Your task to perform on an android device: toggle priority inbox in the gmail app Image 0: 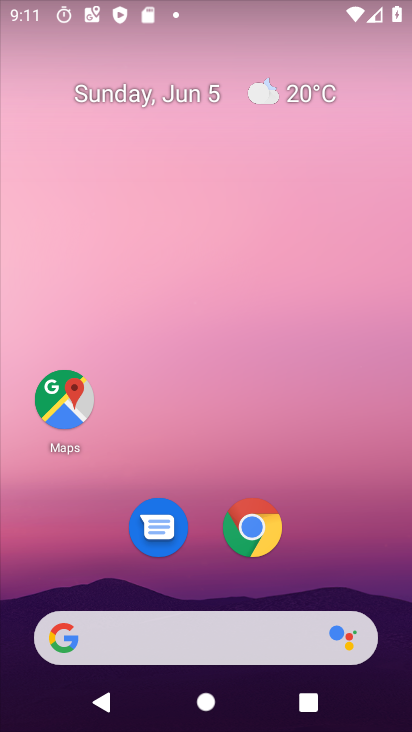
Step 0: drag from (303, 557) to (319, 51)
Your task to perform on an android device: toggle priority inbox in the gmail app Image 1: 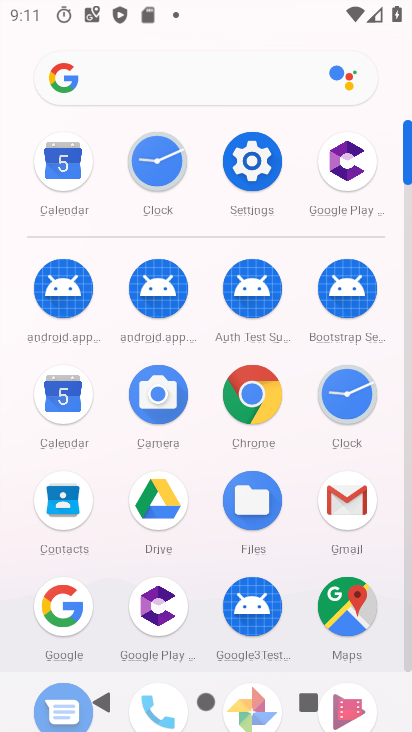
Step 1: click (363, 492)
Your task to perform on an android device: toggle priority inbox in the gmail app Image 2: 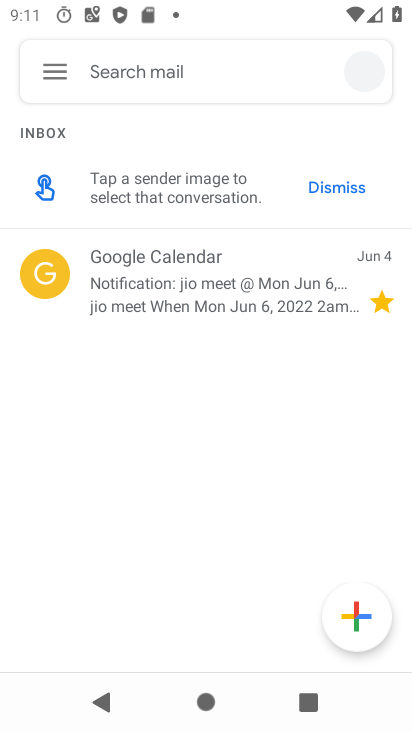
Step 2: click (55, 68)
Your task to perform on an android device: toggle priority inbox in the gmail app Image 3: 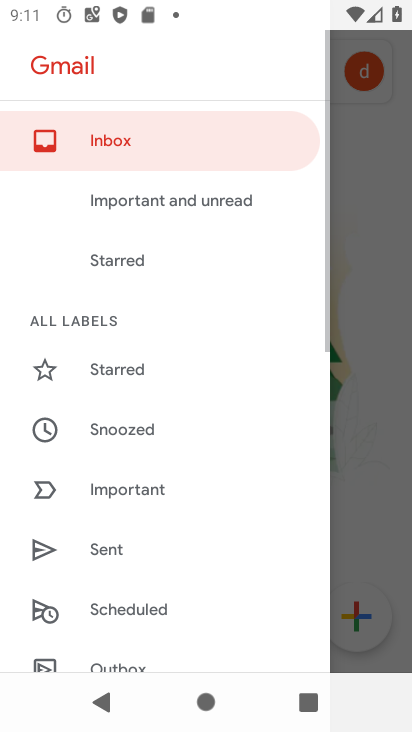
Step 3: drag from (114, 551) to (150, 129)
Your task to perform on an android device: toggle priority inbox in the gmail app Image 4: 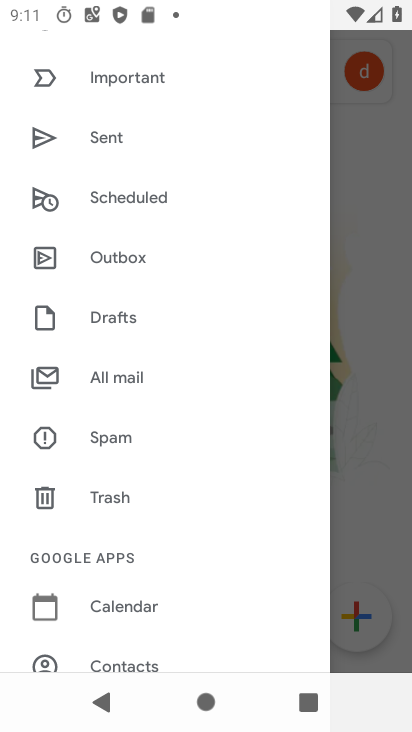
Step 4: drag from (157, 579) to (207, 162)
Your task to perform on an android device: toggle priority inbox in the gmail app Image 5: 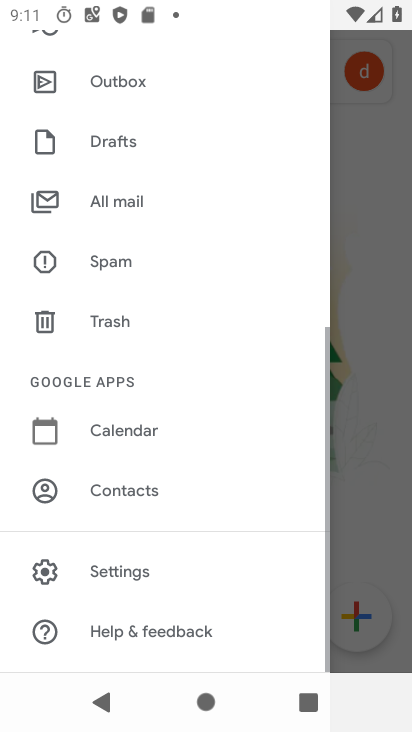
Step 5: click (129, 574)
Your task to perform on an android device: toggle priority inbox in the gmail app Image 6: 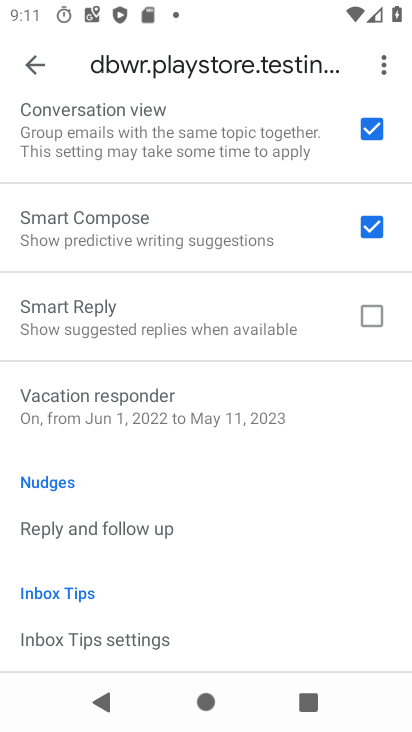
Step 6: drag from (87, 79) to (112, 483)
Your task to perform on an android device: toggle priority inbox in the gmail app Image 7: 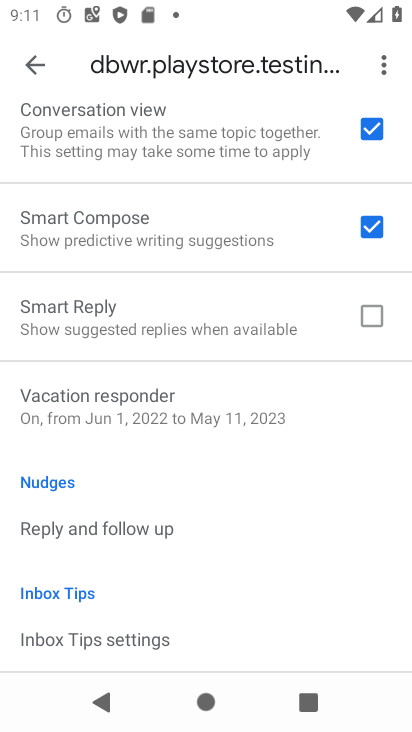
Step 7: drag from (119, 249) to (202, 605)
Your task to perform on an android device: toggle priority inbox in the gmail app Image 8: 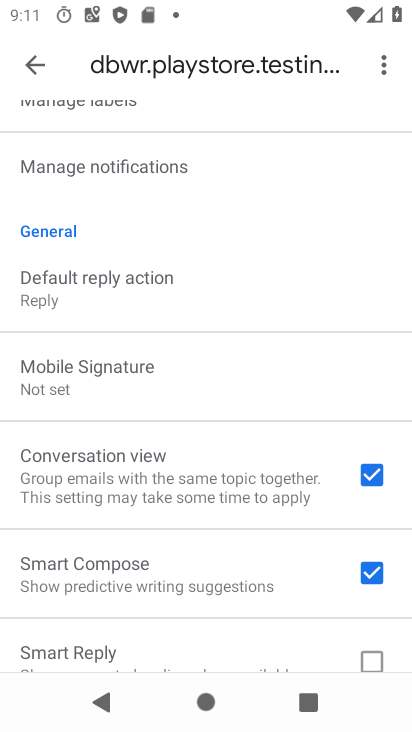
Step 8: drag from (159, 208) to (263, 583)
Your task to perform on an android device: toggle priority inbox in the gmail app Image 9: 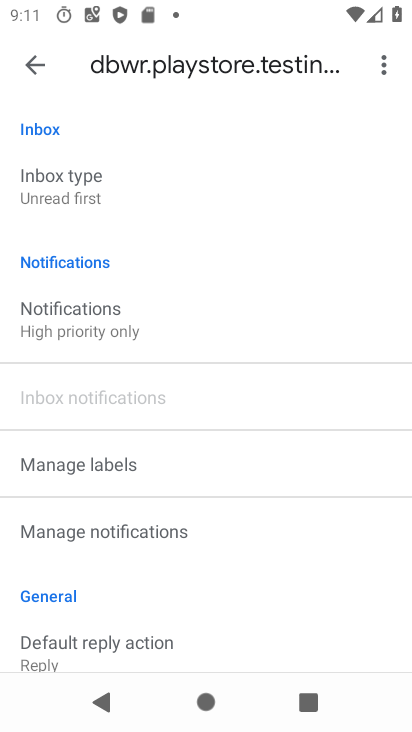
Step 9: drag from (115, 291) to (239, 654)
Your task to perform on an android device: toggle priority inbox in the gmail app Image 10: 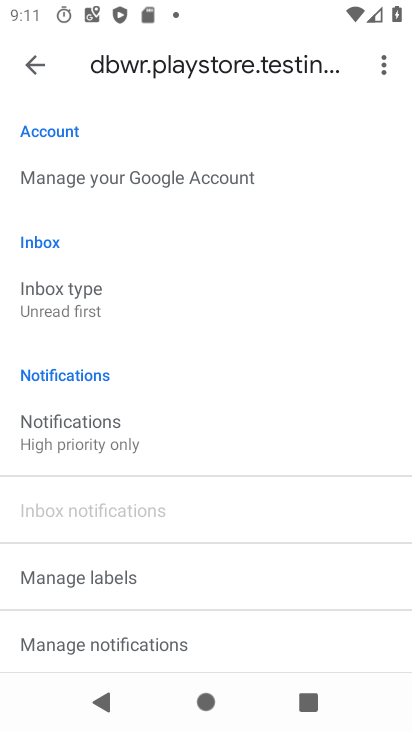
Step 10: click (26, 310)
Your task to perform on an android device: toggle priority inbox in the gmail app Image 11: 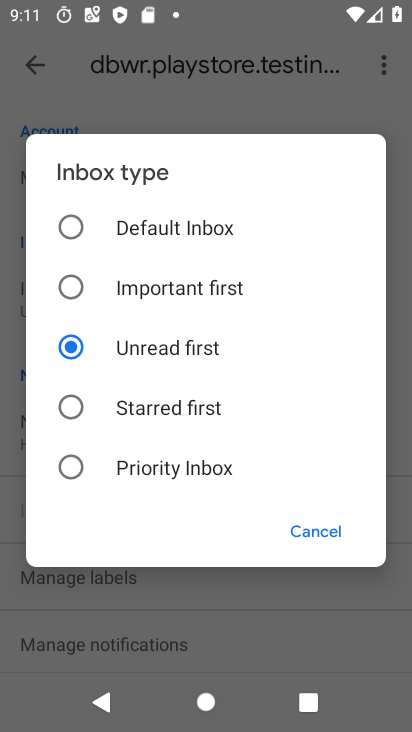
Step 11: click (100, 471)
Your task to perform on an android device: toggle priority inbox in the gmail app Image 12: 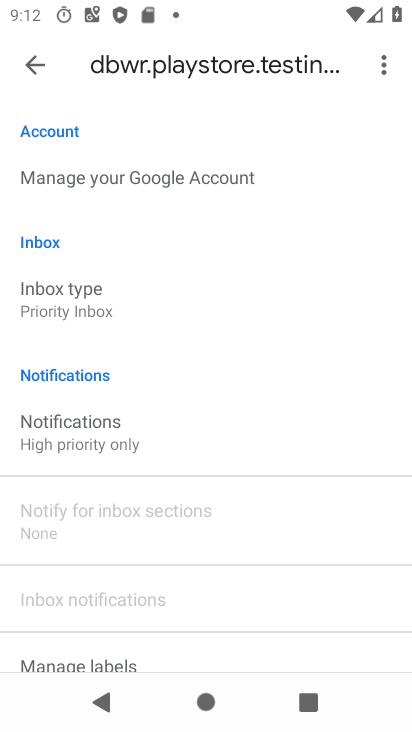
Step 12: task complete